Your task to perform on an android device: What's on my calendar tomorrow? Image 0: 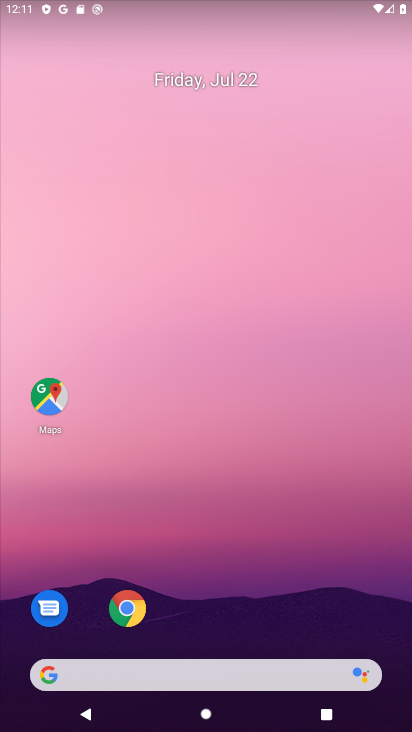
Step 0: press home button
Your task to perform on an android device: What's on my calendar tomorrow? Image 1: 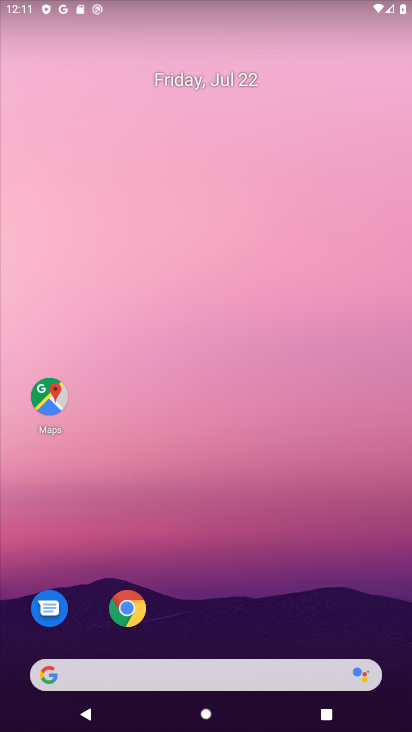
Step 1: drag from (227, 635) to (278, 10)
Your task to perform on an android device: What's on my calendar tomorrow? Image 2: 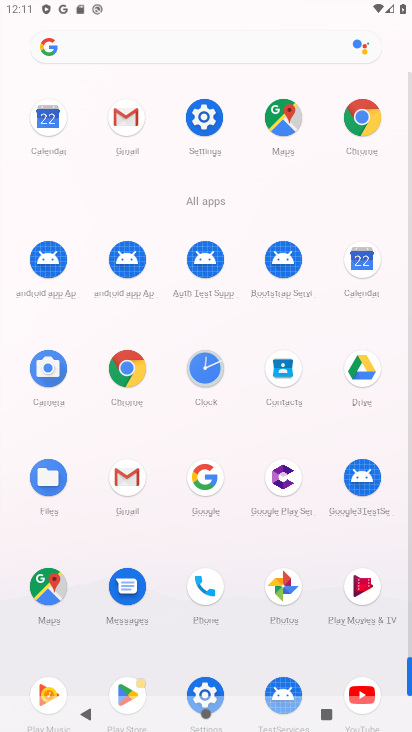
Step 2: click (357, 257)
Your task to perform on an android device: What's on my calendar tomorrow? Image 3: 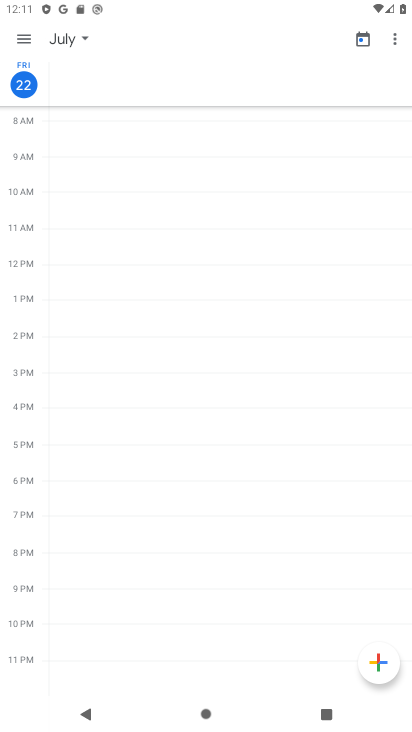
Step 3: click (81, 35)
Your task to perform on an android device: What's on my calendar tomorrow? Image 4: 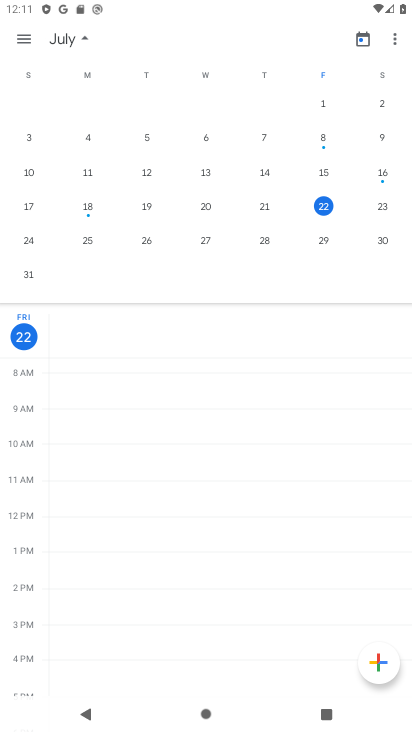
Step 4: click (381, 201)
Your task to perform on an android device: What's on my calendar tomorrow? Image 5: 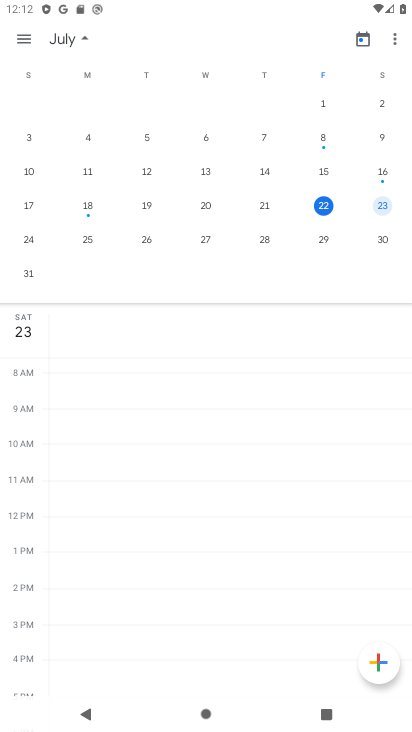
Step 5: click (84, 33)
Your task to perform on an android device: What's on my calendar tomorrow? Image 6: 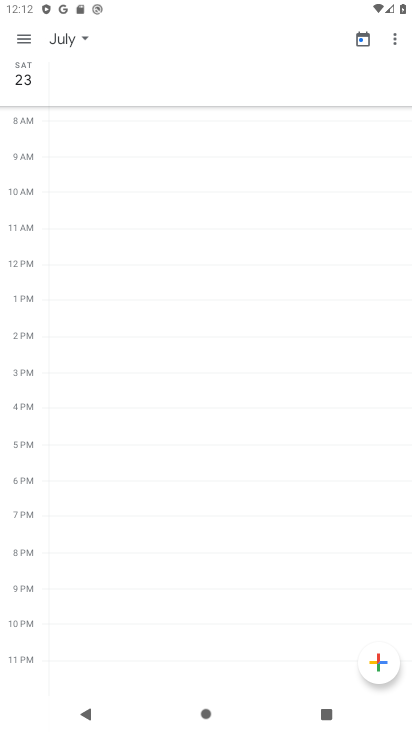
Step 6: task complete